Your task to perform on an android device: check android version Image 0: 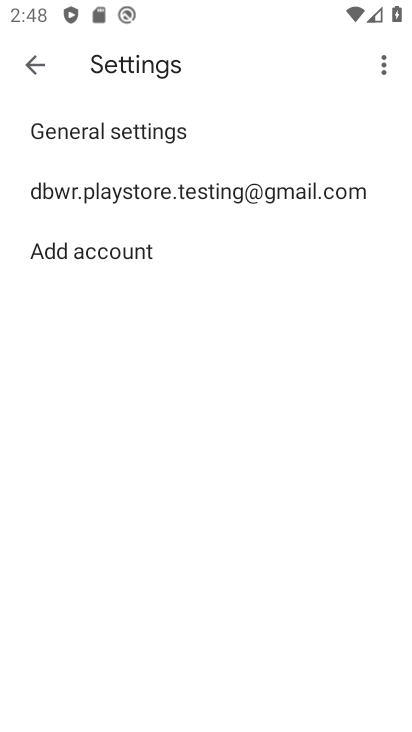
Step 0: press home button
Your task to perform on an android device: check android version Image 1: 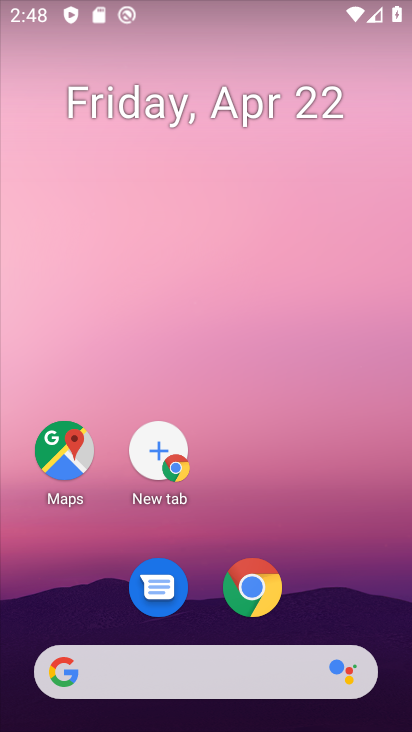
Step 1: drag from (208, 611) to (285, 51)
Your task to perform on an android device: check android version Image 2: 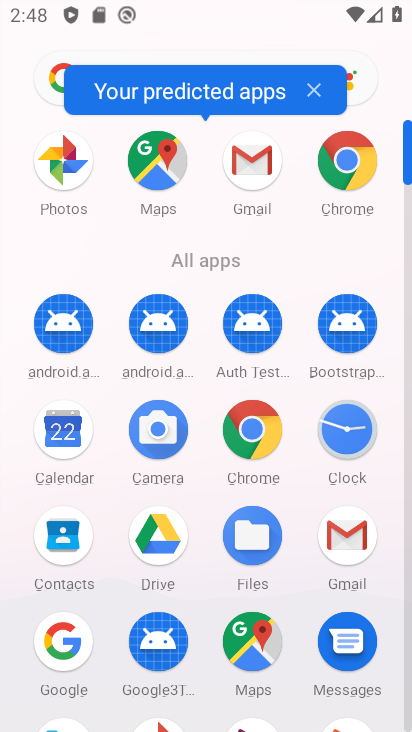
Step 2: drag from (195, 607) to (165, 157)
Your task to perform on an android device: check android version Image 3: 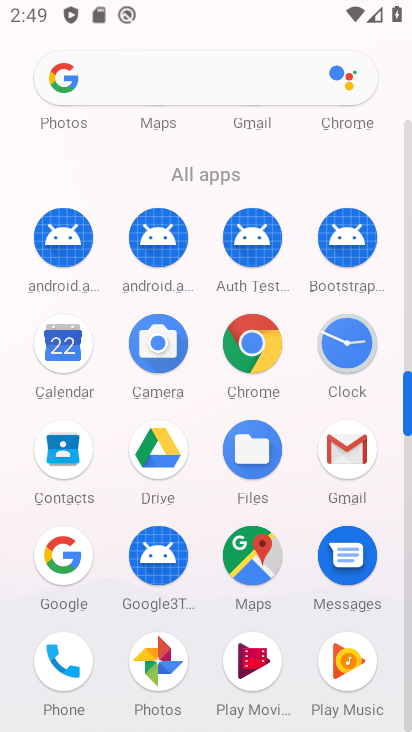
Step 3: drag from (211, 620) to (217, 345)
Your task to perform on an android device: check android version Image 4: 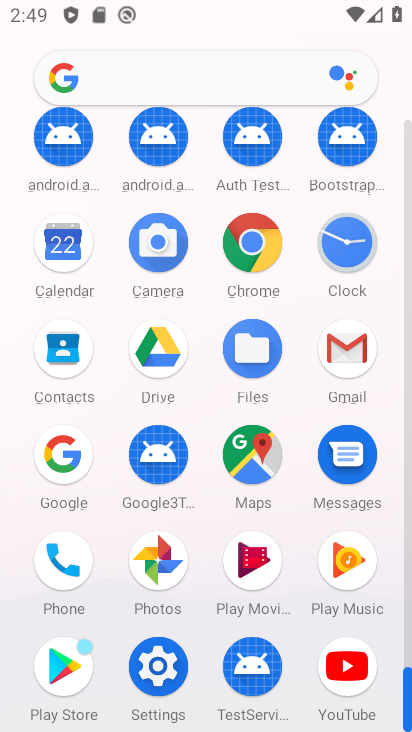
Step 4: click (150, 683)
Your task to perform on an android device: check android version Image 5: 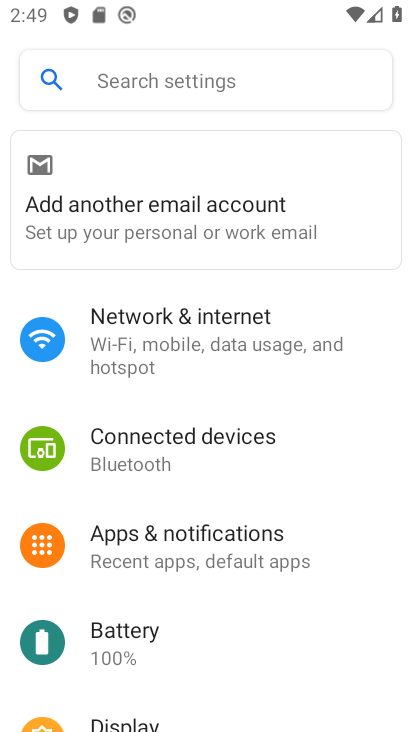
Step 5: drag from (150, 683) to (267, 152)
Your task to perform on an android device: check android version Image 6: 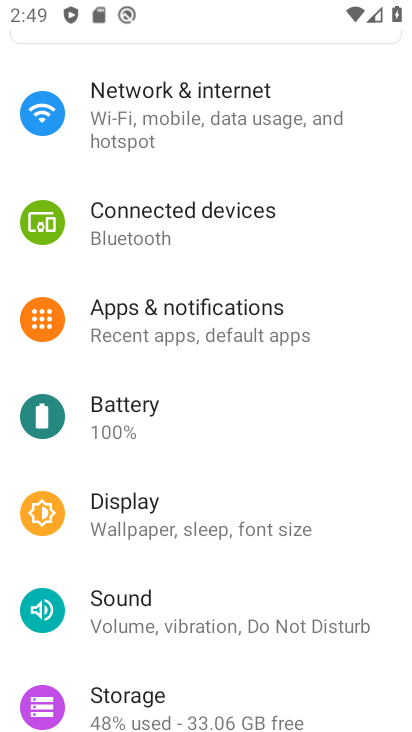
Step 6: drag from (153, 663) to (152, 313)
Your task to perform on an android device: check android version Image 7: 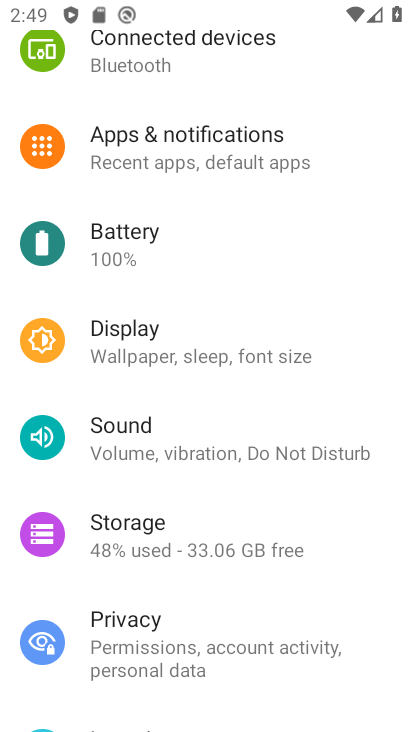
Step 7: drag from (165, 639) to (240, 174)
Your task to perform on an android device: check android version Image 8: 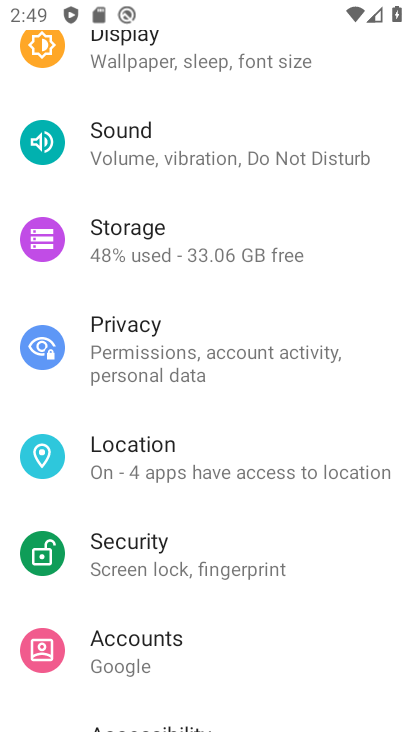
Step 8: drag from (182, 629) to (210, 230)
Your task to perform on an android device: check android version Image 9: 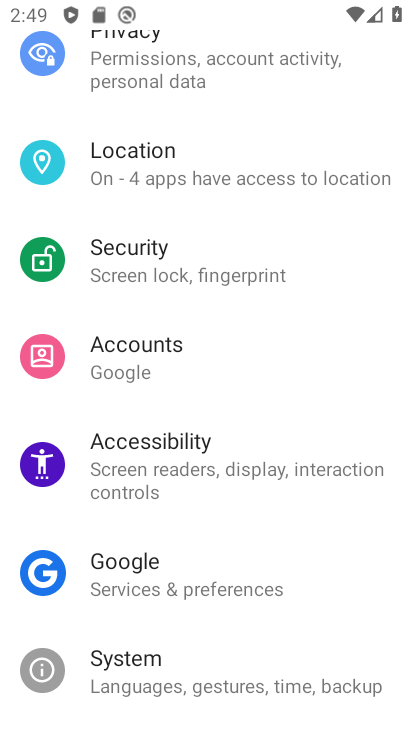
Step 9: drag from (146, 585) to (206, 147)
Your task to perform on an android device: check android version Image 10: 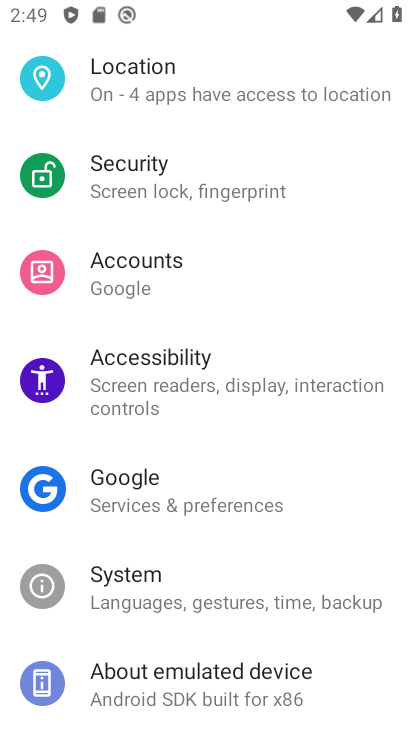
Step 10: drag from (137, 688) to (243, 74)
Your task to perform on an android device: check android version Image 11: 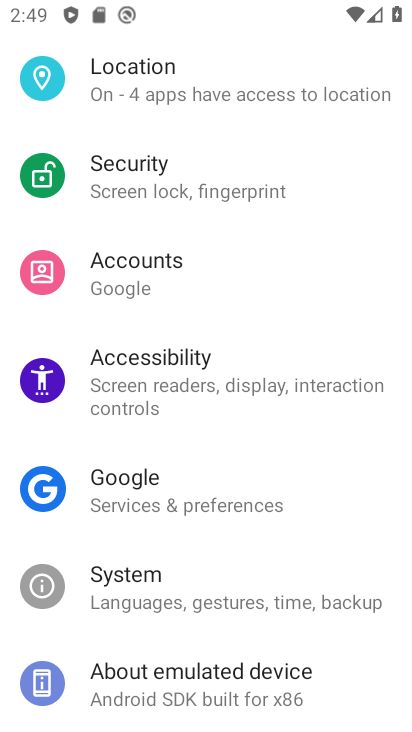
Step 11: click (142, 683)
Your task to perform on an android device: check android version Image 12: 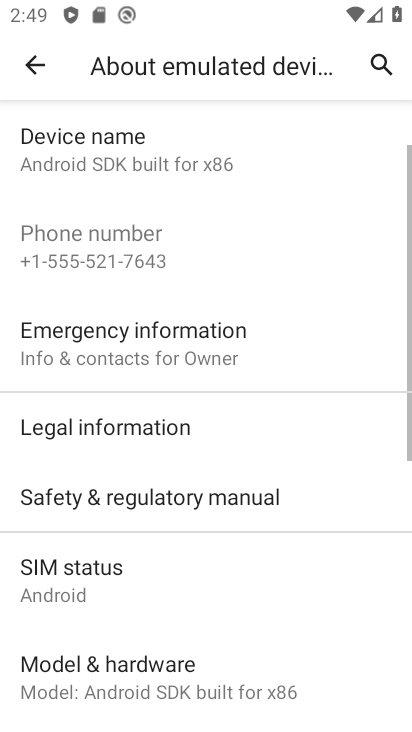
Step 12: drag from (116, 662) to (183, 290)
Your task to perform on an android device: check android version Image 13: 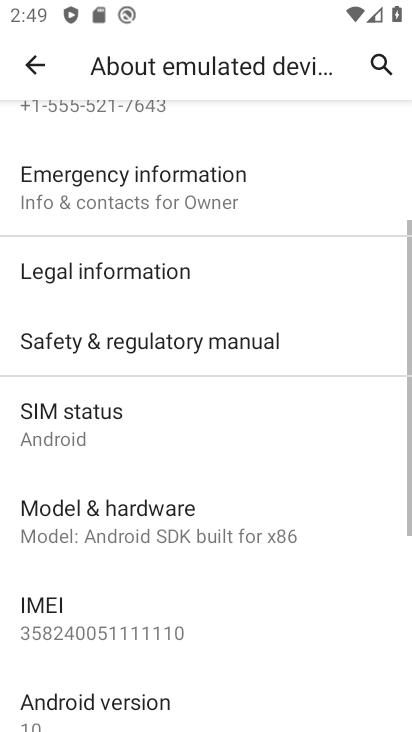
Step 13: drag from (206, 279) to (227, 656)
Your task to perform on an android device: check android version Image 14: 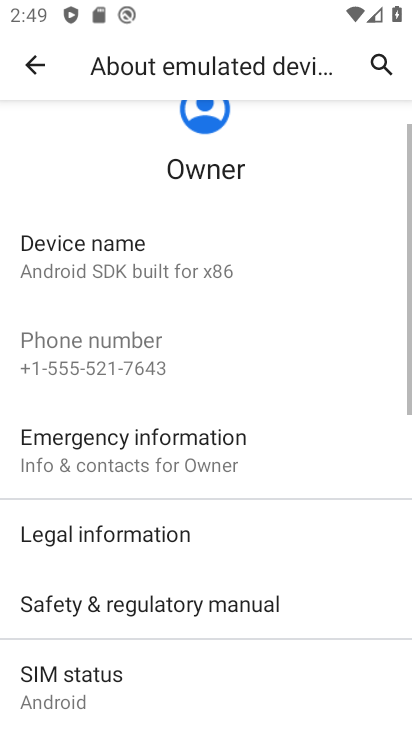
Step 14: drag from (227, 656) to (281, 174)
Your task to perform on an android device: check android version Image 15: 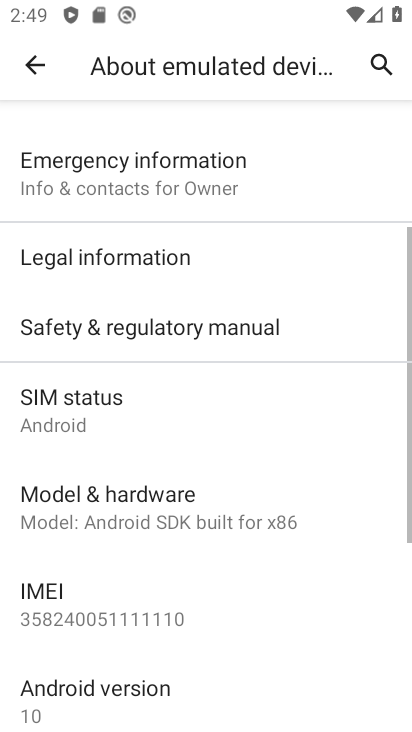
Step 15: click (60, 687)
Your task to perform on an android device: check android version Image 16: 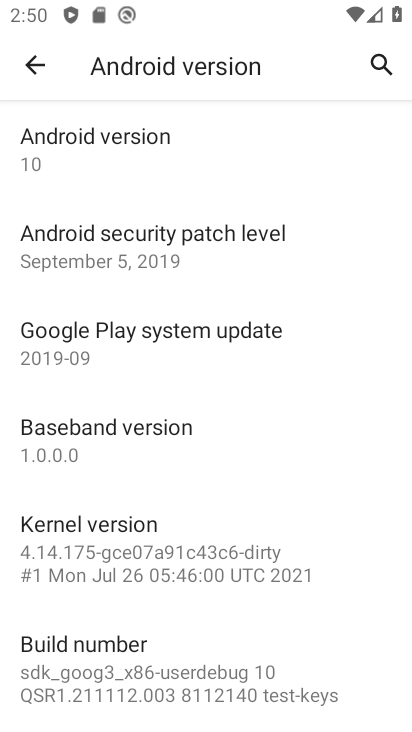
Step 16: task complete